Your task to perform on an android device: What's the weather today? Image 0: 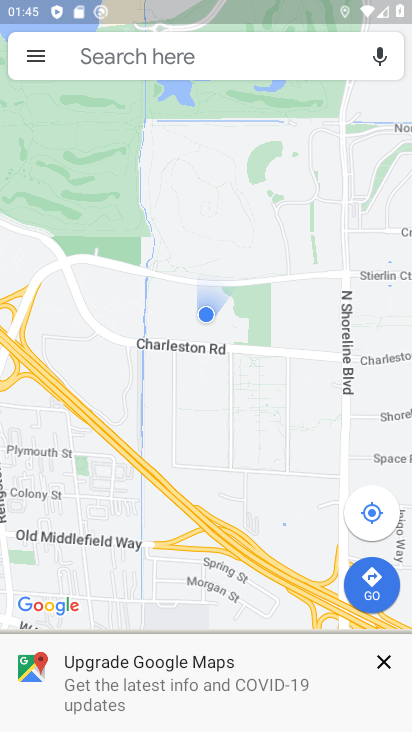
Step 0: press home button
Your task to perform on an android device: What's the weather today? Image 1: 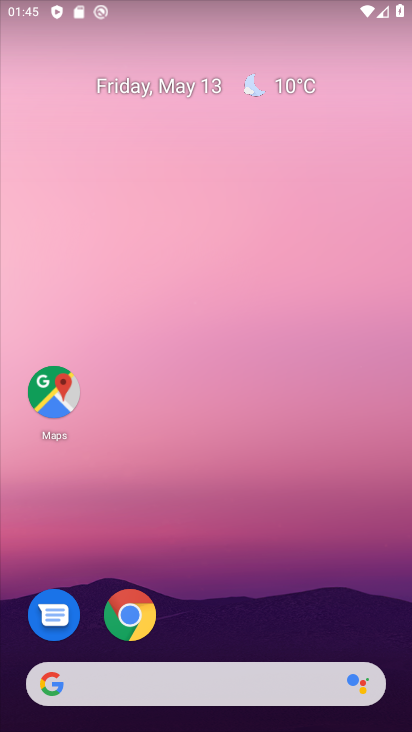
Step 1: click (132, 615)
Your task to perform on an android device: What's the weather today? Image 2: 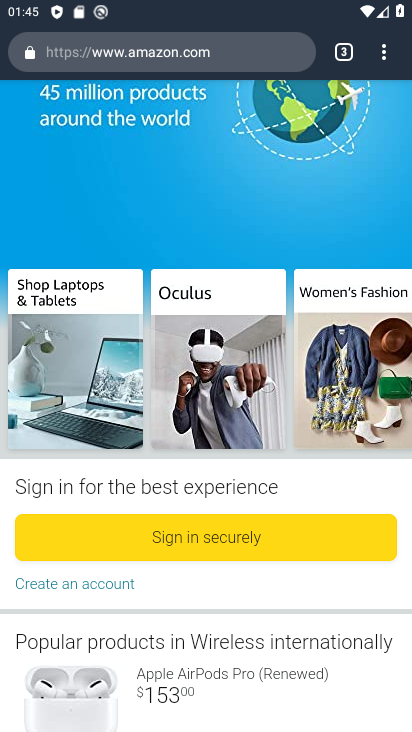
Step 2: click (339, 52)
Your task to perform on an android device: What's the weather today? Image 3: 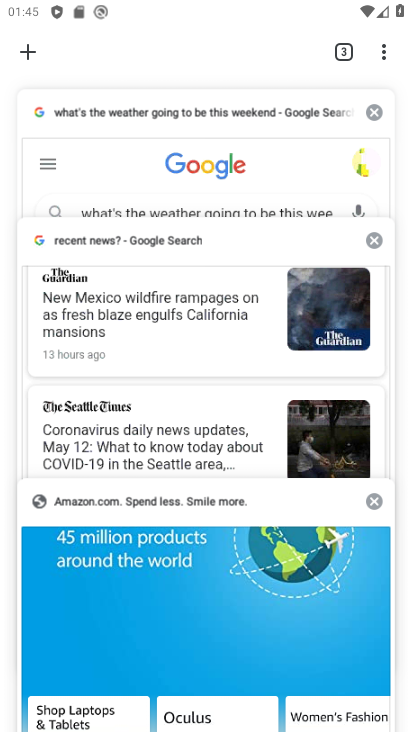
Step 3: click (25, 47)
Your task to perform on an android device: What's the weather today? Image 4: 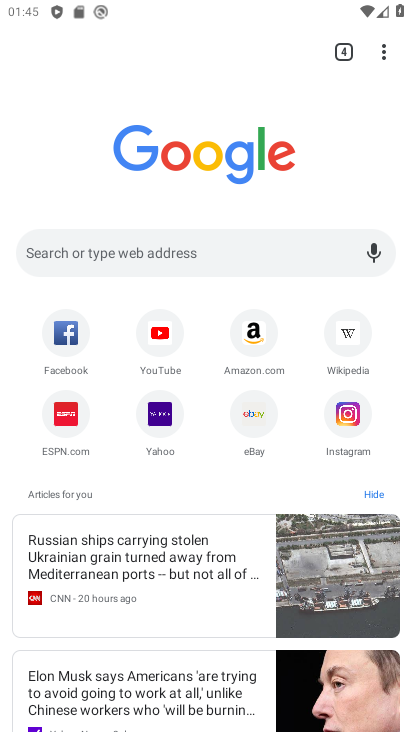
Step 4: click (78, 245)
Your task to perform on an android device: What's the weather today? Image 5: 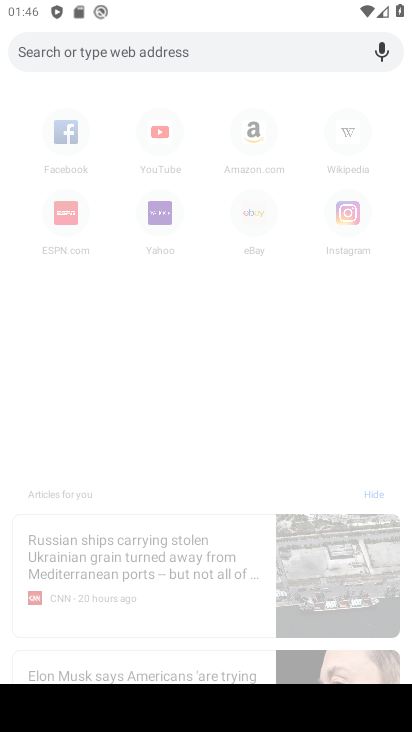
Step 5: type "what's the weather today?"
Your task to perform on an android device: What's the weather today? Image 6: 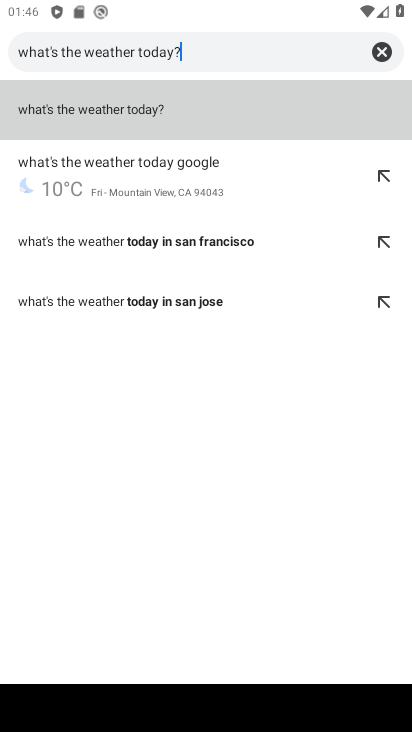
Step 6: click (127, 107)
Your task to perform on an android device: What's the weather today? Image 7: 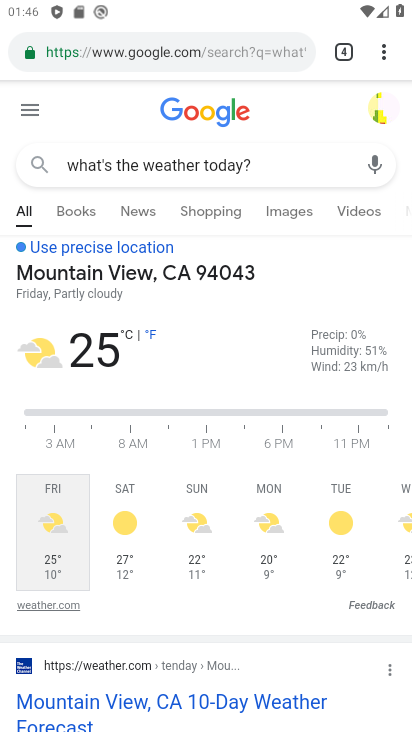
Step 7: task complete